Your task to perform on an android device: turn notification dots on Image 0: 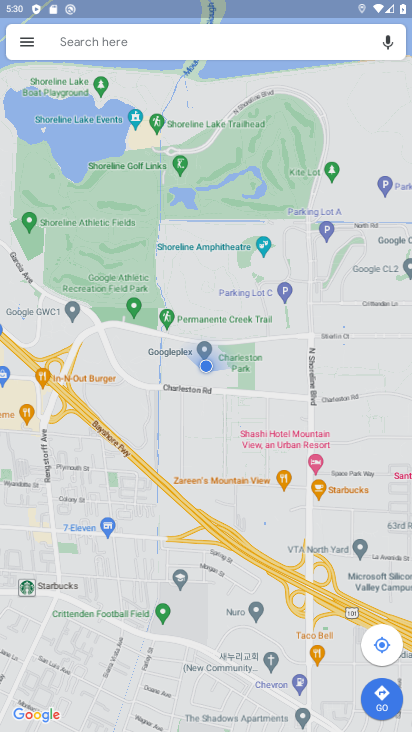
Step 0: press home button
Your task to perform on an android device: turn notification dots on Image 1: 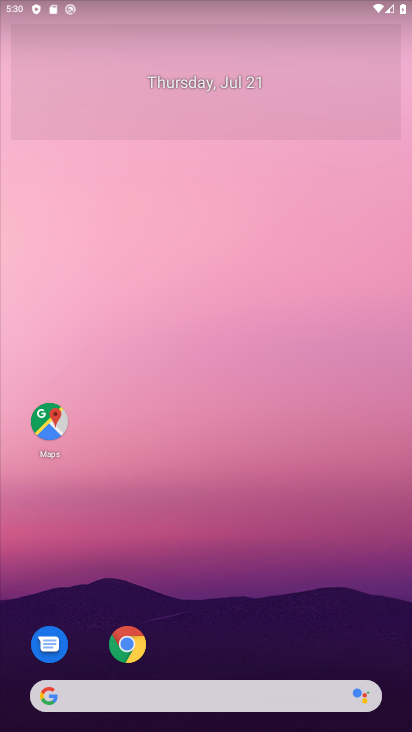
Step 1: drag from (283, 2) to (335, 435)
Your task to perform on an android device: turn notification dots on Image 2: 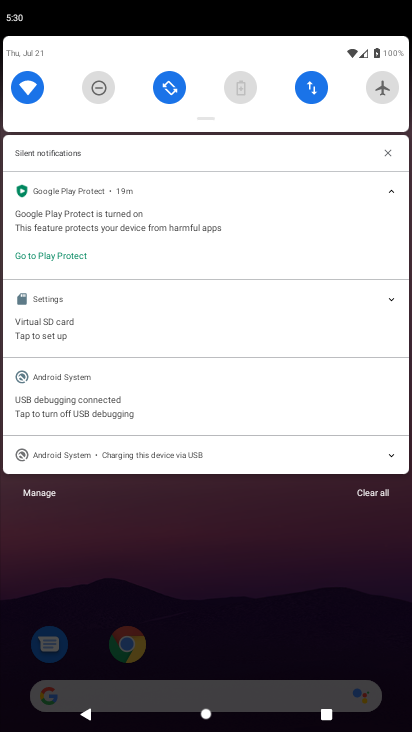
Step 2: click (371, 491)
Your task to perform on an android device: turn notification dots on Image 3: 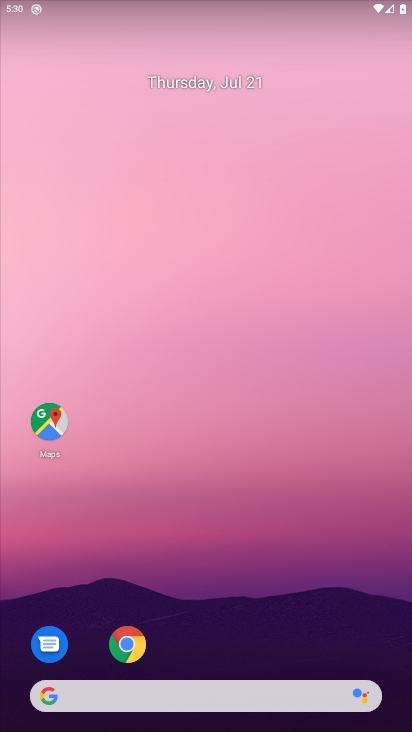
Step 3: task complete